Your task to perform on an android device: toggle improve location accuracy Image 0: 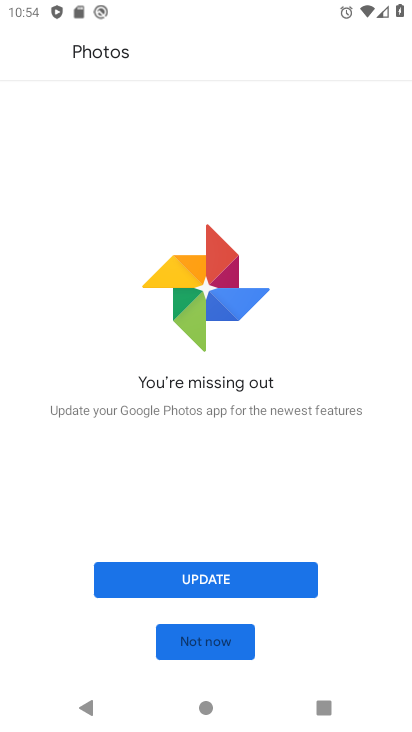
Step 0: press home button
Your task to perform on an android device: toggle improve location accuracy Image 1: 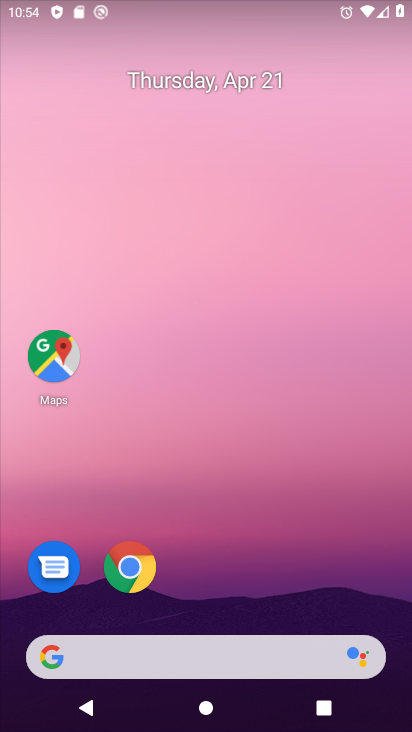
Step 1: click (263, 452)
Your task to perform on an android device: toggle improve location accuracy Image 2: 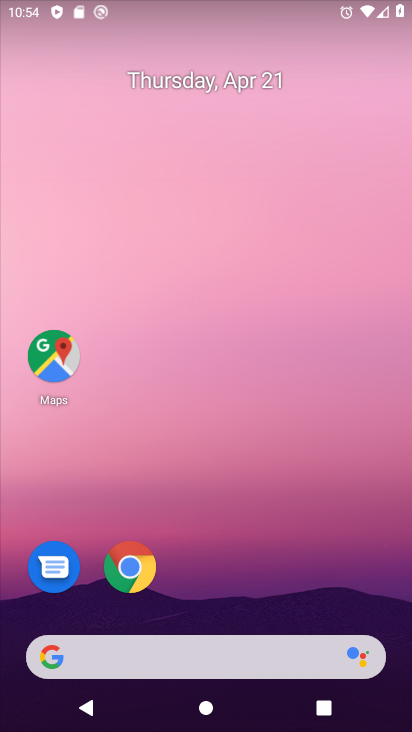
Step 2: drag from (222, 584) to (265, 44)
Your task to perform on an android device: toggle improve location accuracy Image 3: 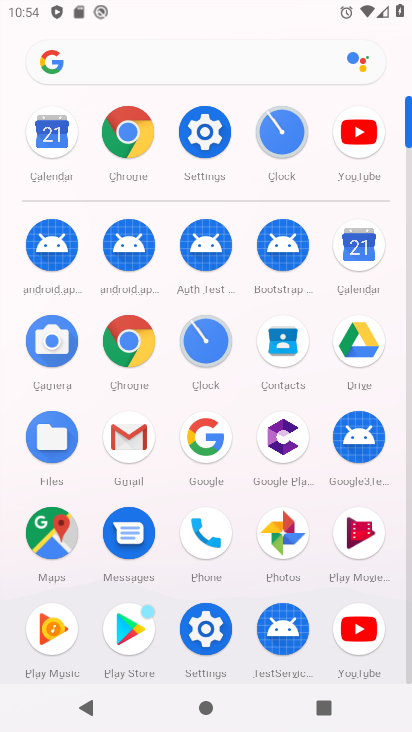
Step 3: click (196, 136)
Your task to perform on an android device: toggle improve location accuracy Image 4: 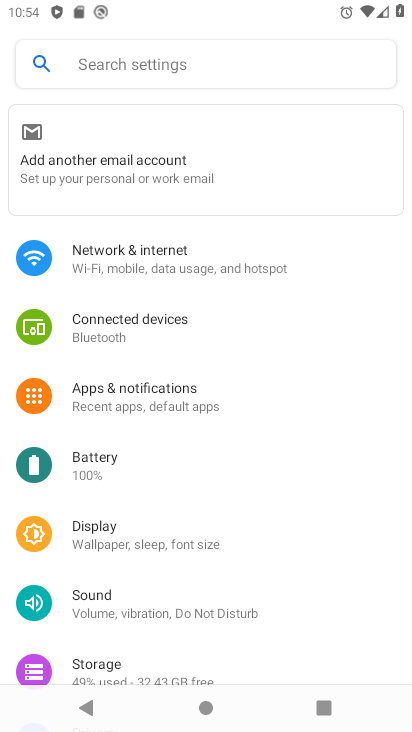
Step 4: drag from (130, 600) to (257, 199)
Your task to perform on an android device: toggle improve location accuracy Image 5: 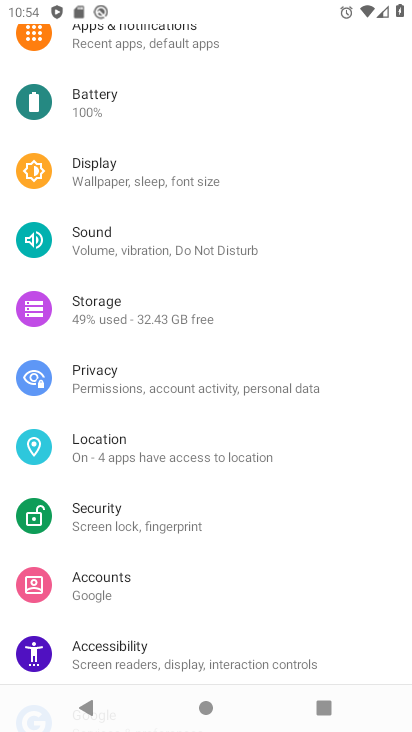
Step 5: click (150, 451)
Your task to perform on an android device: toggle improve location accuracy Image 6: 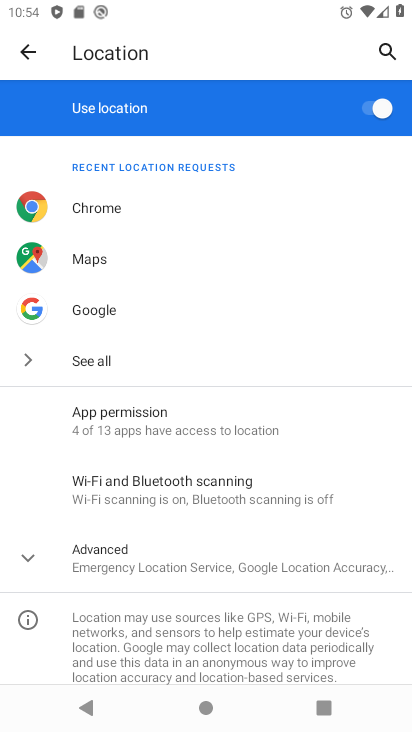
Step 6: click (125, 565)
Your task to perform on an android device: toggle improve location accuracy Image 7: 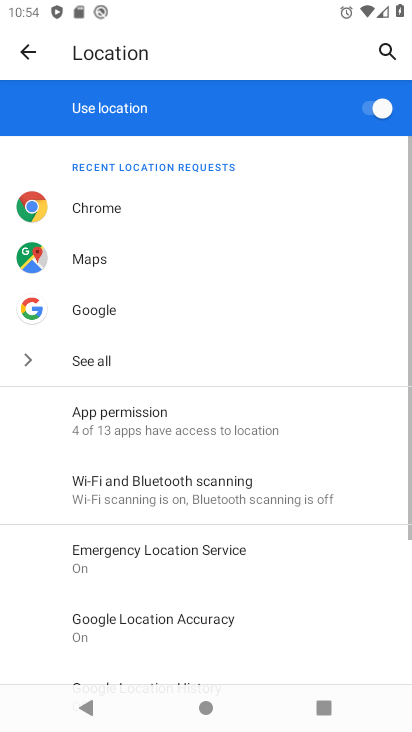
Step 7: drag from (192, 610) to (259, 362)
Your task to perform on an android device: toggle improve location accuracy Image 8: 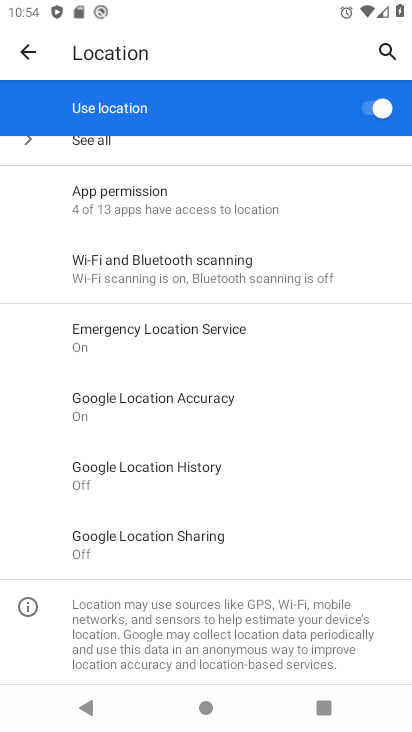
Step 8: click (168, 415)
Your task to perform on an android device: toggle improve location accuracy Image 9: 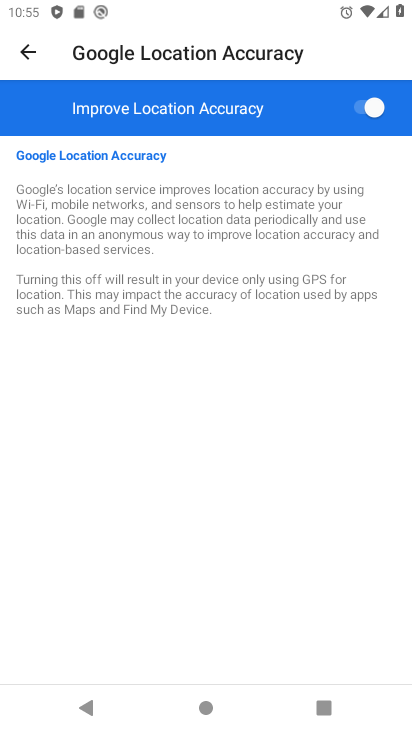
Step 9: click (364, 104)
Your task to perform on an android device: toggle improve location accuracy Image 10: 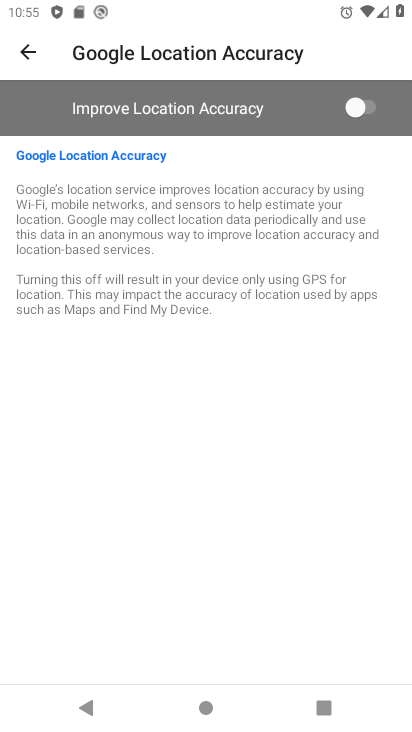
Step 10: task complete